Your task to perform on an android device: What is the capital of Japan? Image 0: 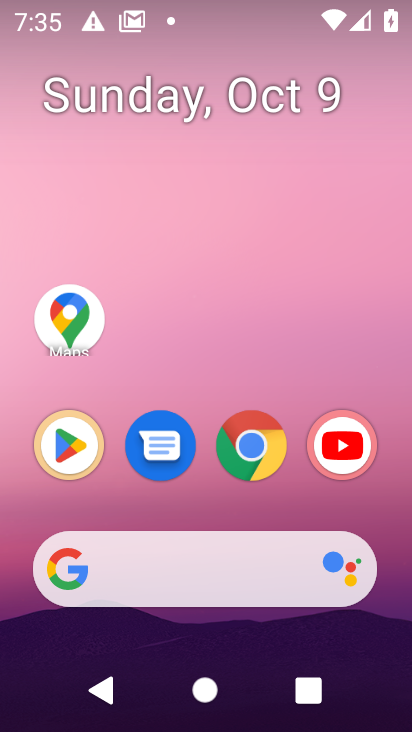
Step 0: click (219, 141)
Your task to perform on an android device: What is the capital of Japan? Image 1: 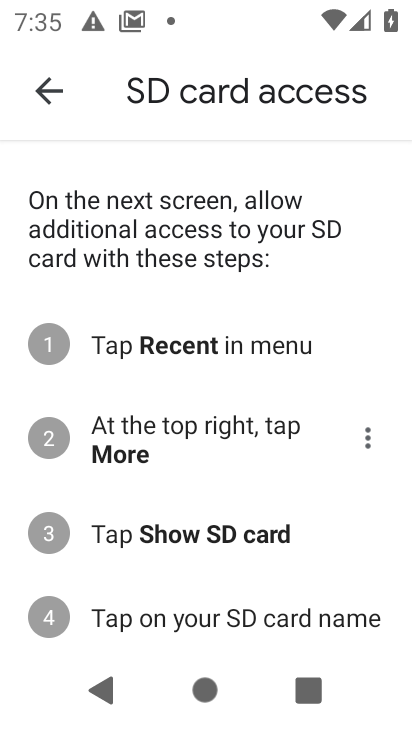
Step 1: press home button
Your task to perform on an android device: What is the capital of Japan? Image 2: 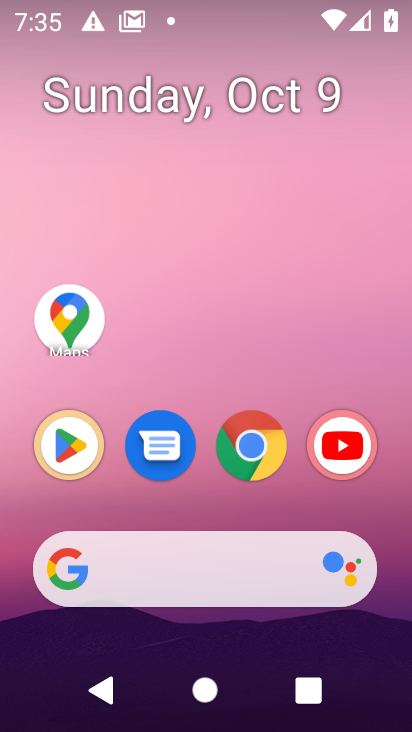
Step 2: drag from (139, 538) to (159, 155)
Your task to perform on an android device: What is the capital of Japan? Image 3: 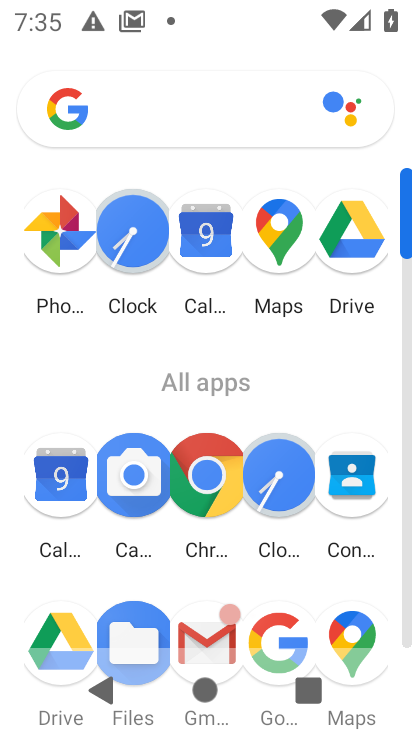
Step 3: click (278, 634)
Your task to perform on an android device: What is the capital of Japan? Image 4: 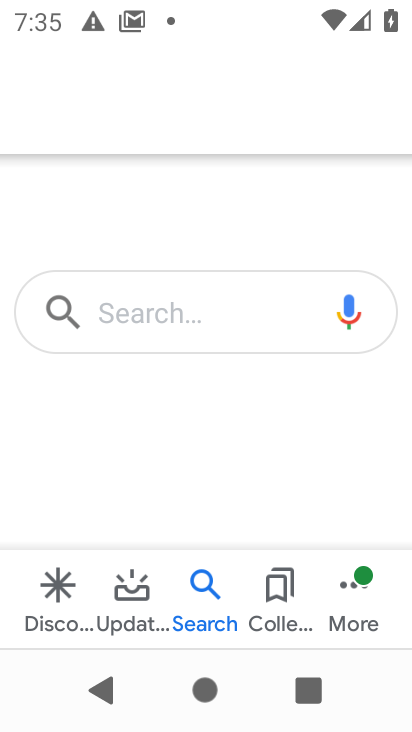
Step 4: click (106, 310)
Your task to perform on an android device: What is the capital of Japan? Image 5: 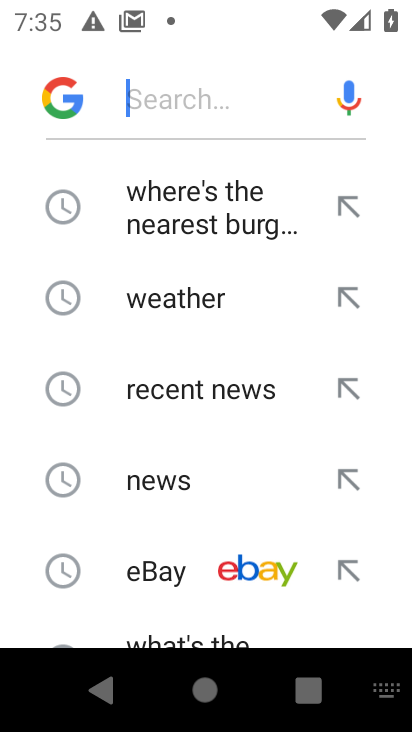
Step 5: type "What is the capital of Japan?"
Your task to perform on an android device: What is the capital of Japan? Image 6: 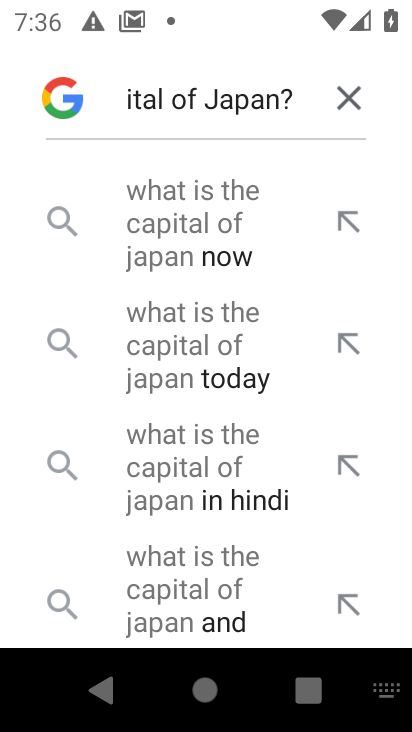
Step 6: click (201, 225)
Your task to perform on an android device: What is the capital of Japan? Image 7: 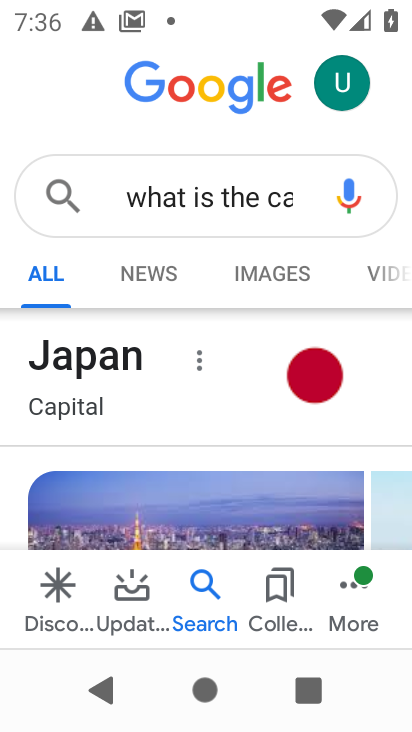
Step 7: task complete